Your task to perform on an android device: see sites visited before in the chrome app Image 0: 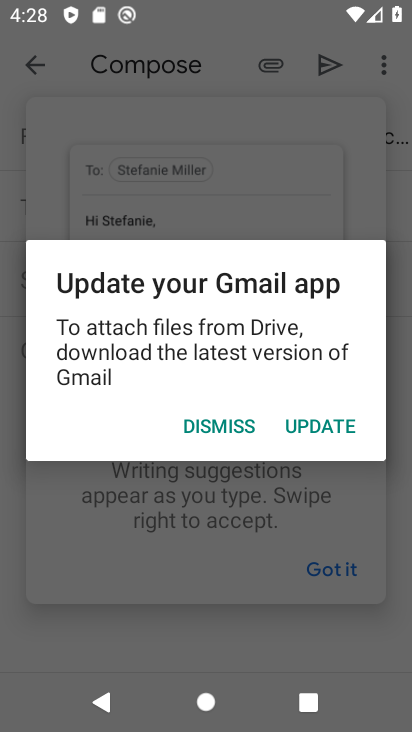
Step 0: press home button
Your task to perform on an android device: see sites visited before in the chrome app Image 1: 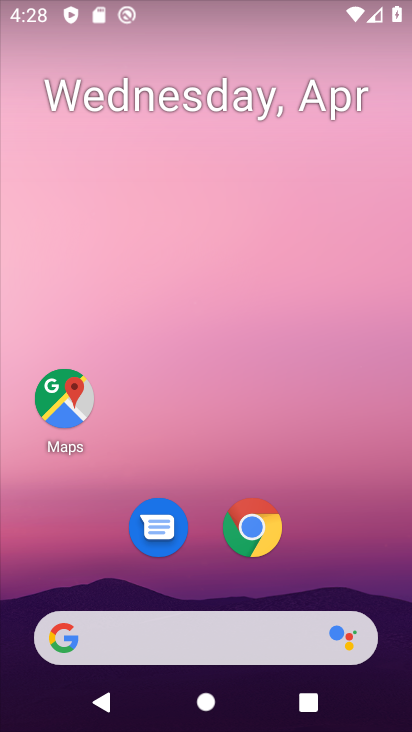
Step 1: click (254, 529)
Your task to perform on an android device: see sites visited before in the chrome app Image 2: 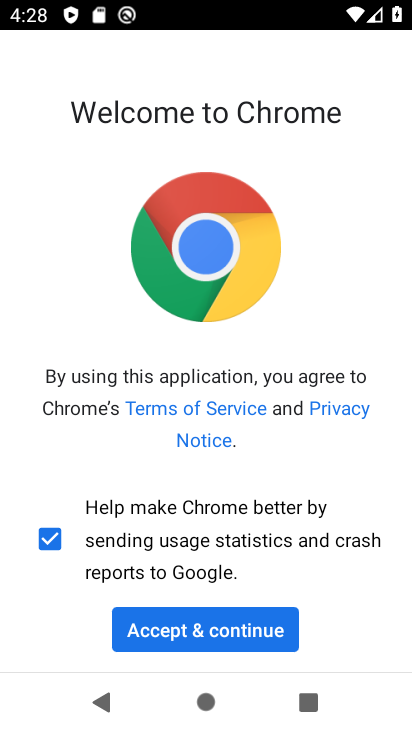
Step 2: click (200, 627)
Your task to perform on an android device: see sites visited before in the chrome app Image 3: 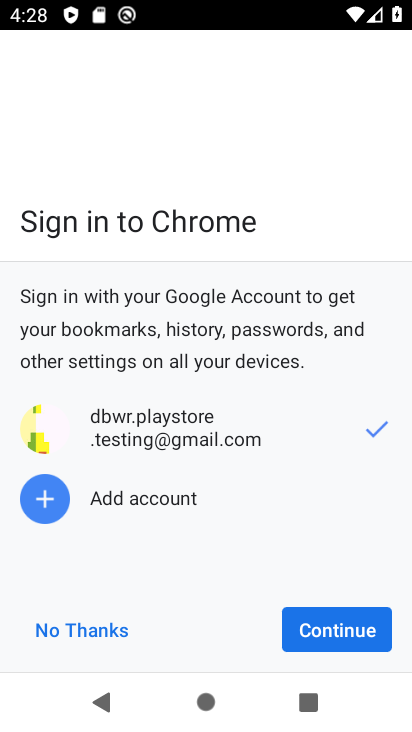
Step 3: click (75, 633)
Your task to perform on an android device: see sites visited before in the chrome app Image 4: 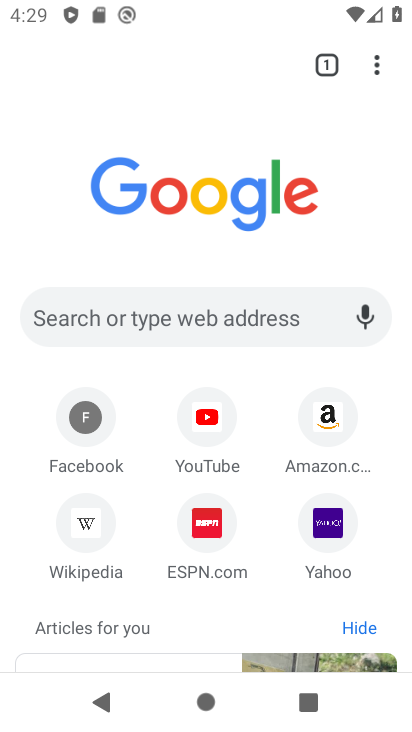
Step 4: click (373, 67)
Your task to perform on an android device: see sites visited before in the chrome app Image 5: 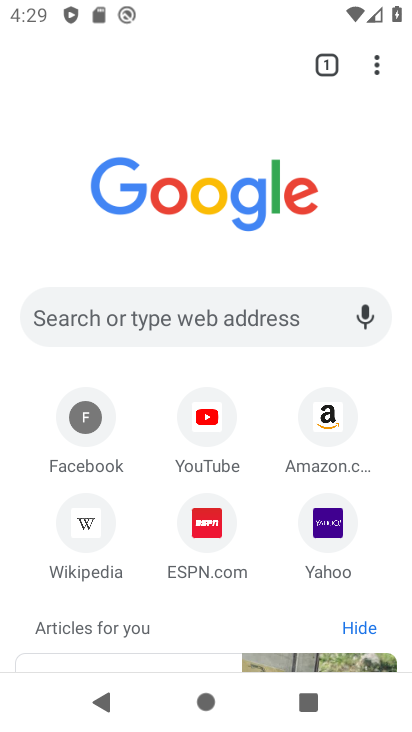
Step 5: click (377, 62)
Your task to perform on an android device: see sites visited before in the chrome app Image 6: 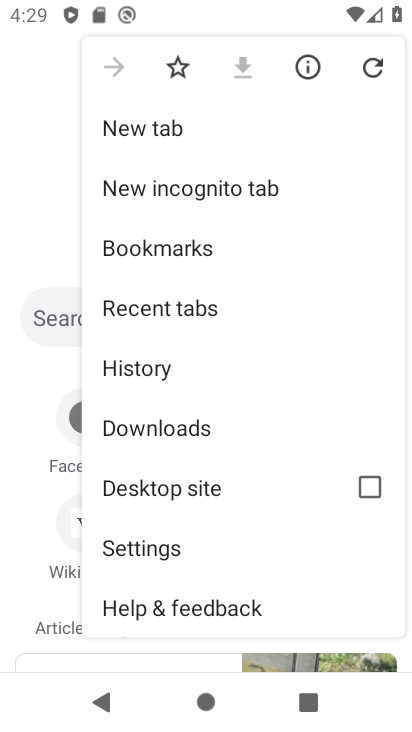
Step 6: click (152, 366)
Your task to perform on an android device: see sites visited before in the chrome app Image 7: 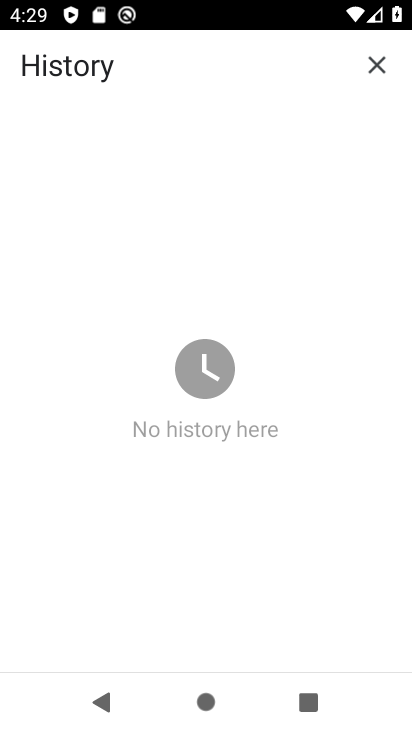
Step 7: task complete